Your task to perform on an android device: View the shopping cart on costco. Add razer deathadder to the cart on costco Image 0: 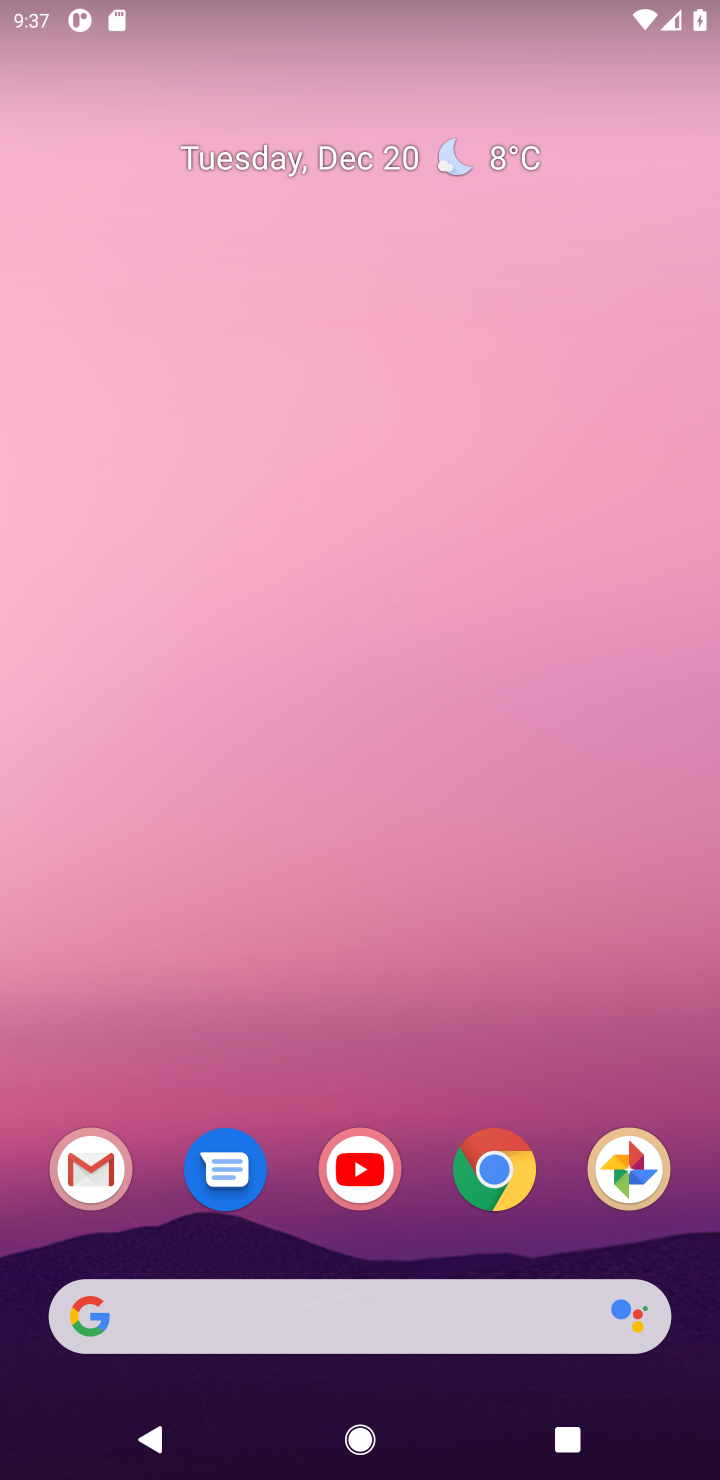
Step 0: click (431, 1291)
Your task to perform on an android device: View the shopping cart on costco. Add razer deathadder to the cart on costco Image 1: 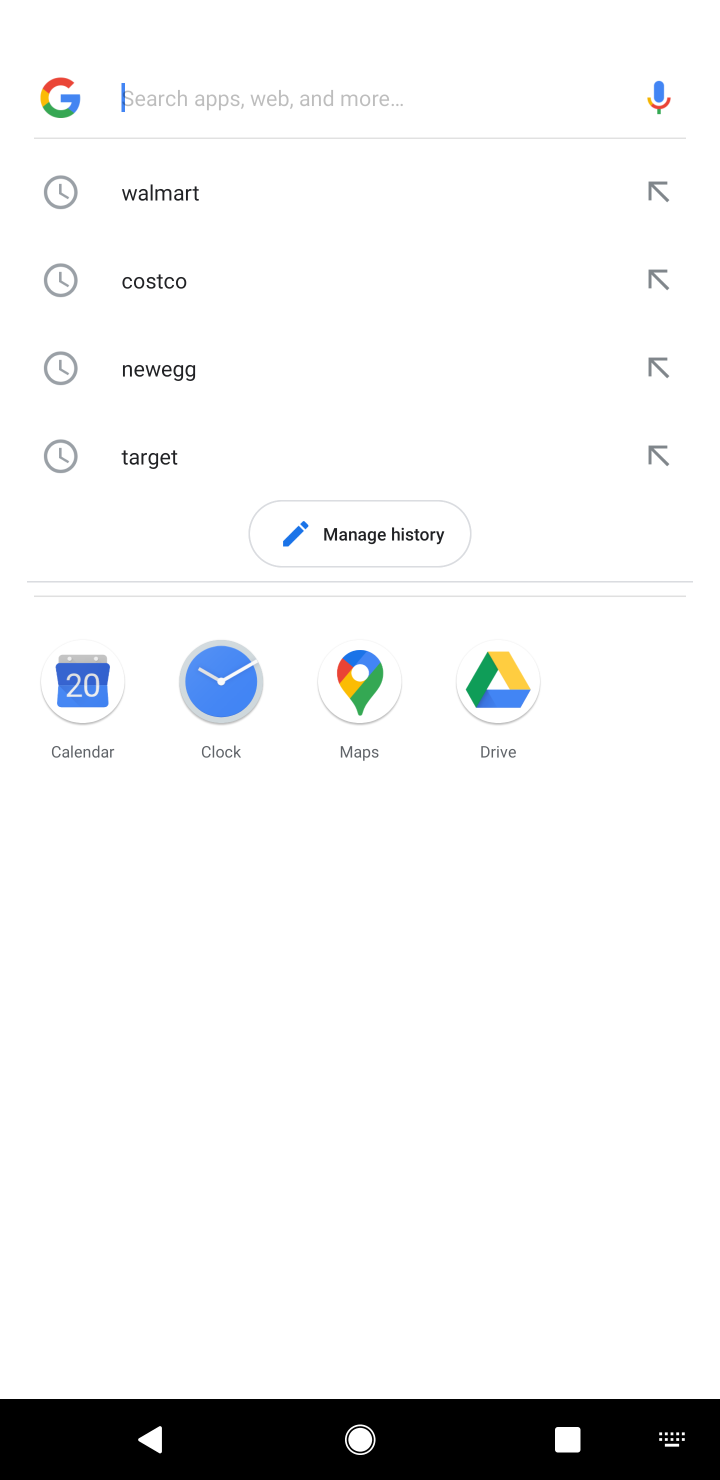
Step 1: click (206, 305)
Your task to perform on an android device: View the shopping cart on costco. Add razer deathadder to the cart on costco Image 2: 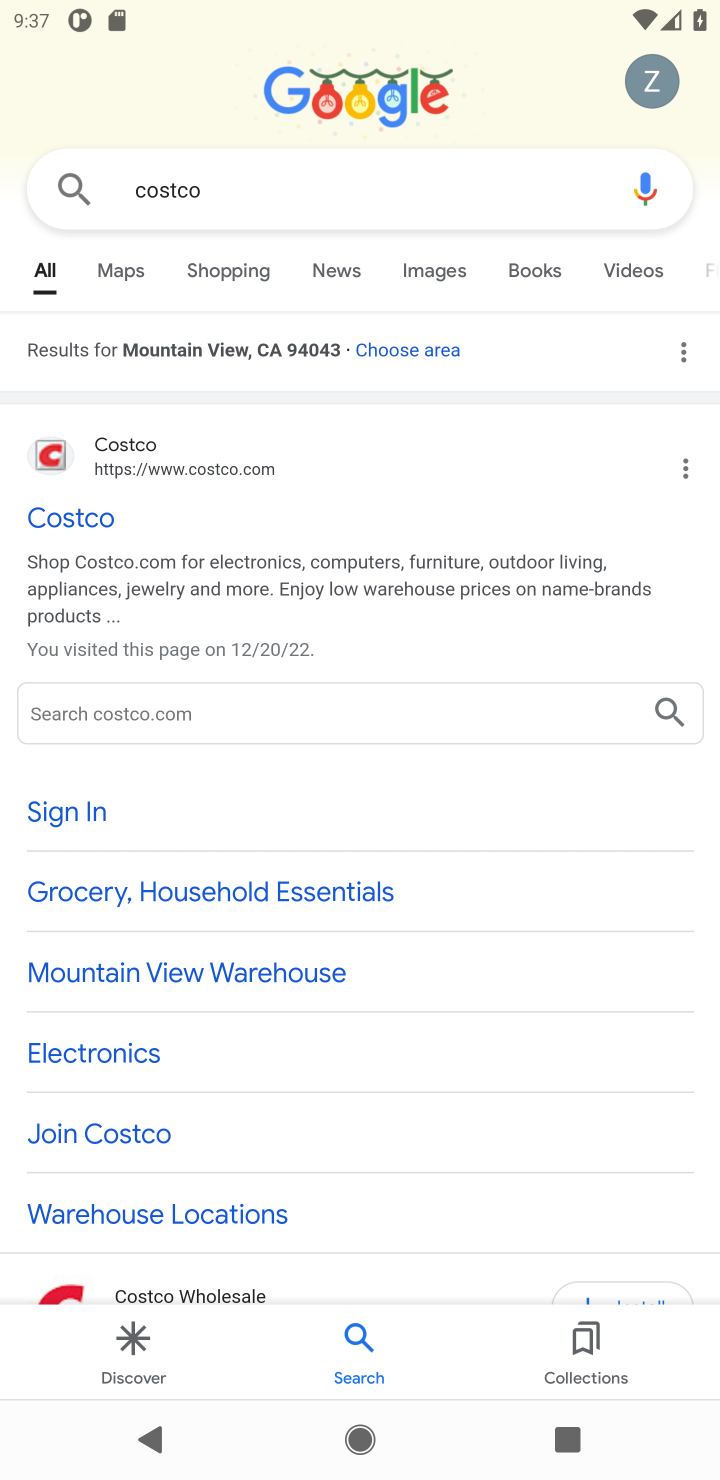
Step 2: click (78, 511)
Your task to perform on an android device: View the shopping cart on costco. Add razer deathadder to the cart on costco Image 3: 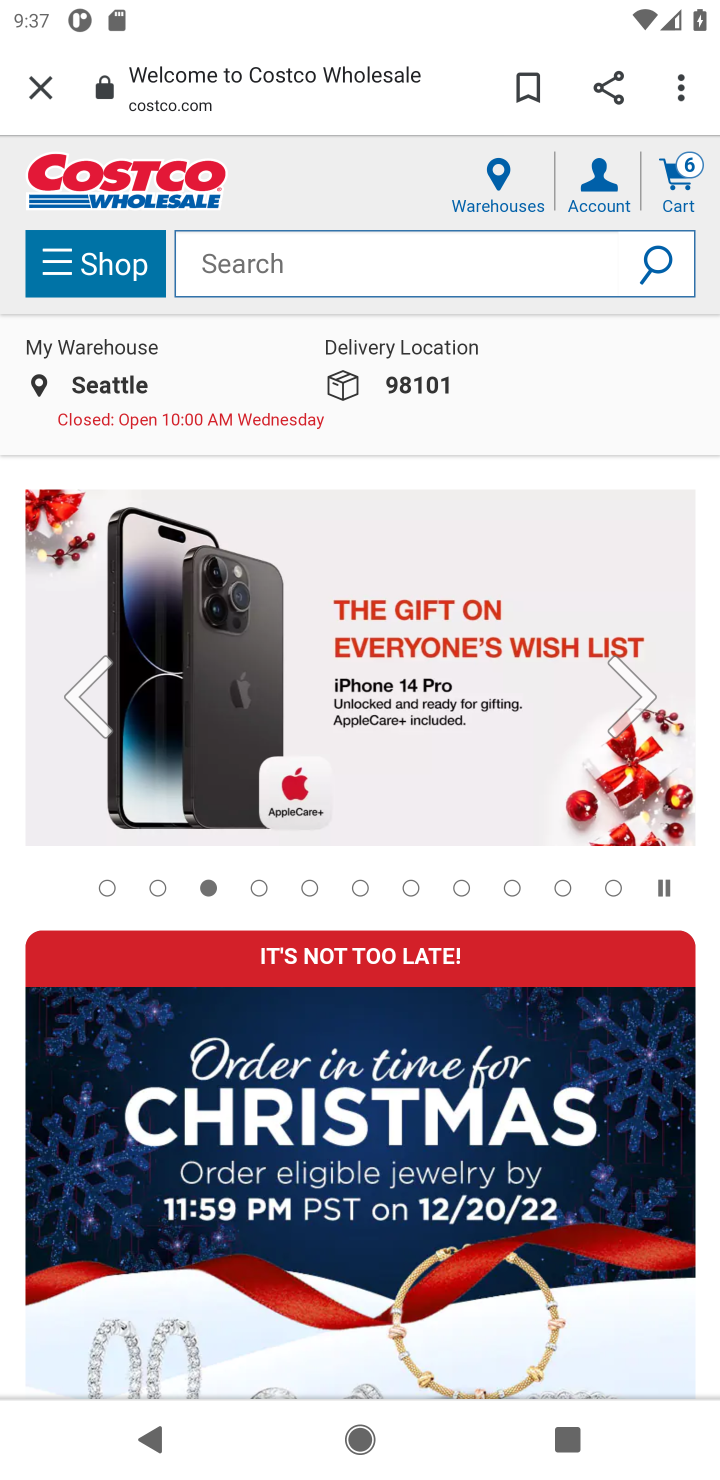
Step 3: click (377, 270)
Your task to perform on an android device: View the shopping cart on costco. Add razer deathadder to the cart on costco Image 4: 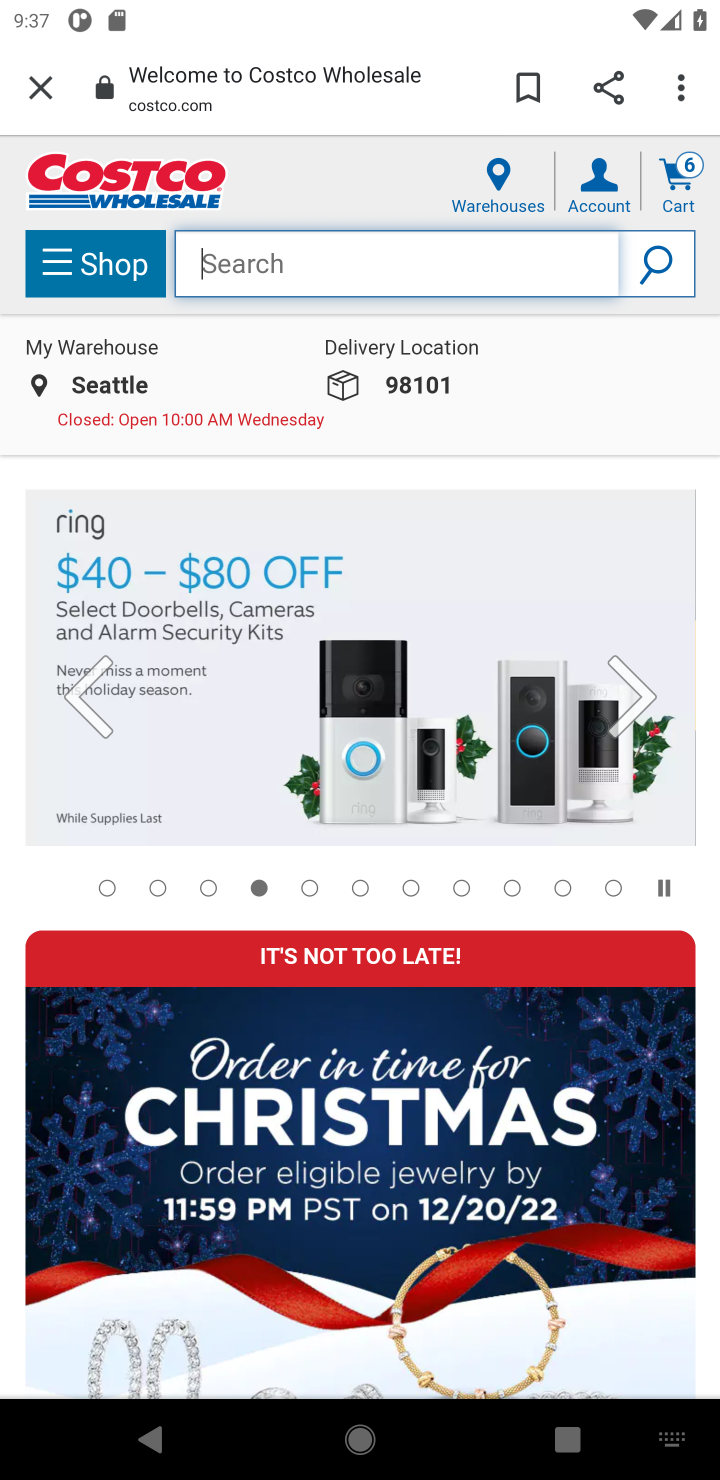
Step 4: type "razer deathadder"
Your task to perform on an android device: View the shopping cart on costco. Add razer deathadder to the cart on costco Image 5: 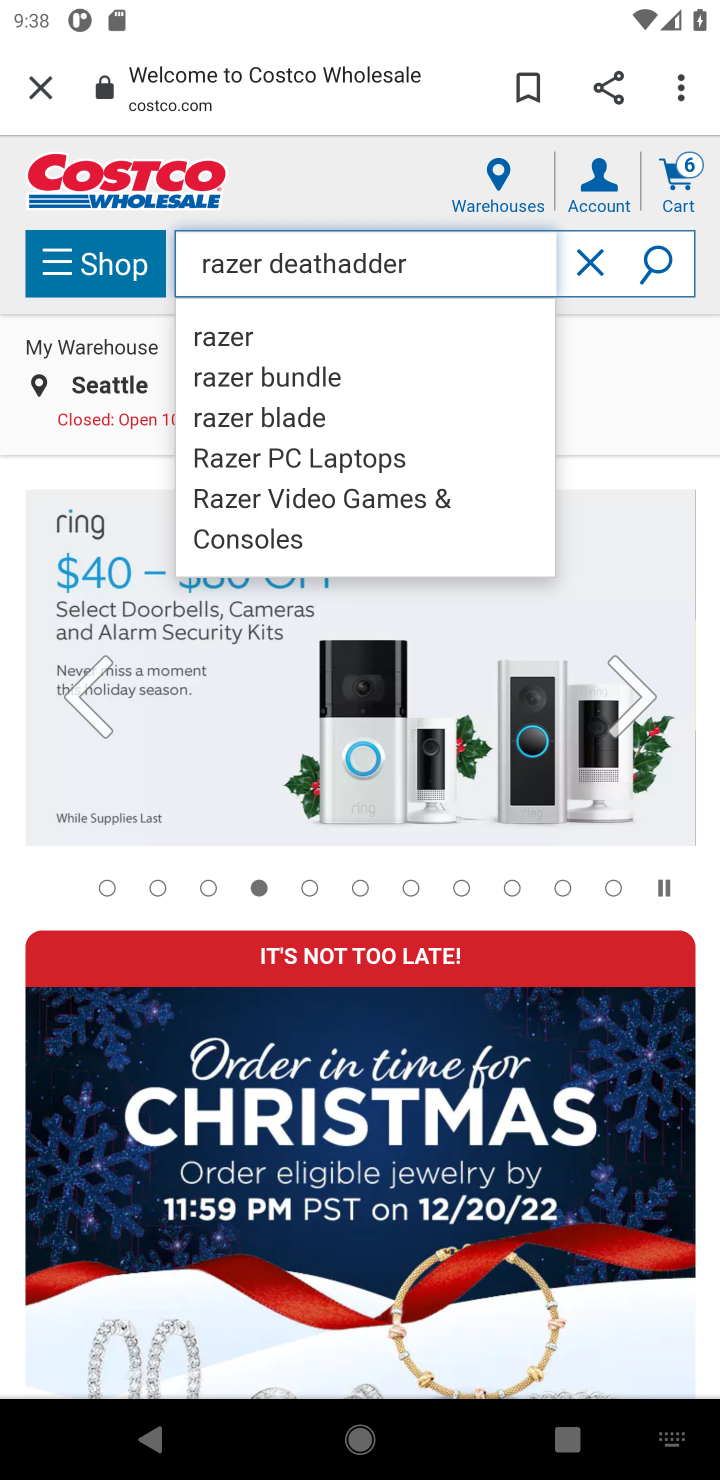
Step 5: click (668, 274)
Your task to perform on an android device: View the shopping cart on costco. Add razer deathadder to the cart on costco Image 6: 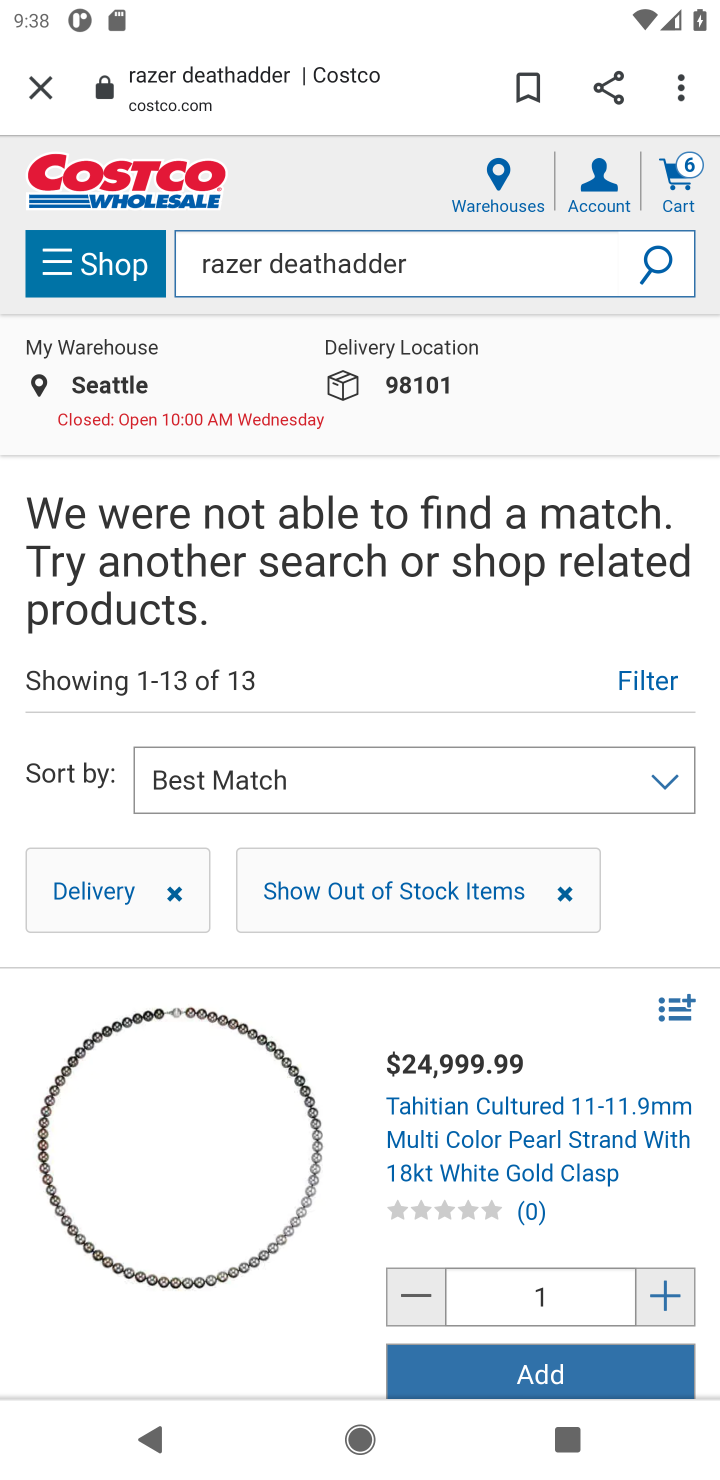
Step 6: click (526, 1372)
Your task to perform on an android device: View the shopping cart on costco. Add razer deathadder to the cart on costco Image 7: 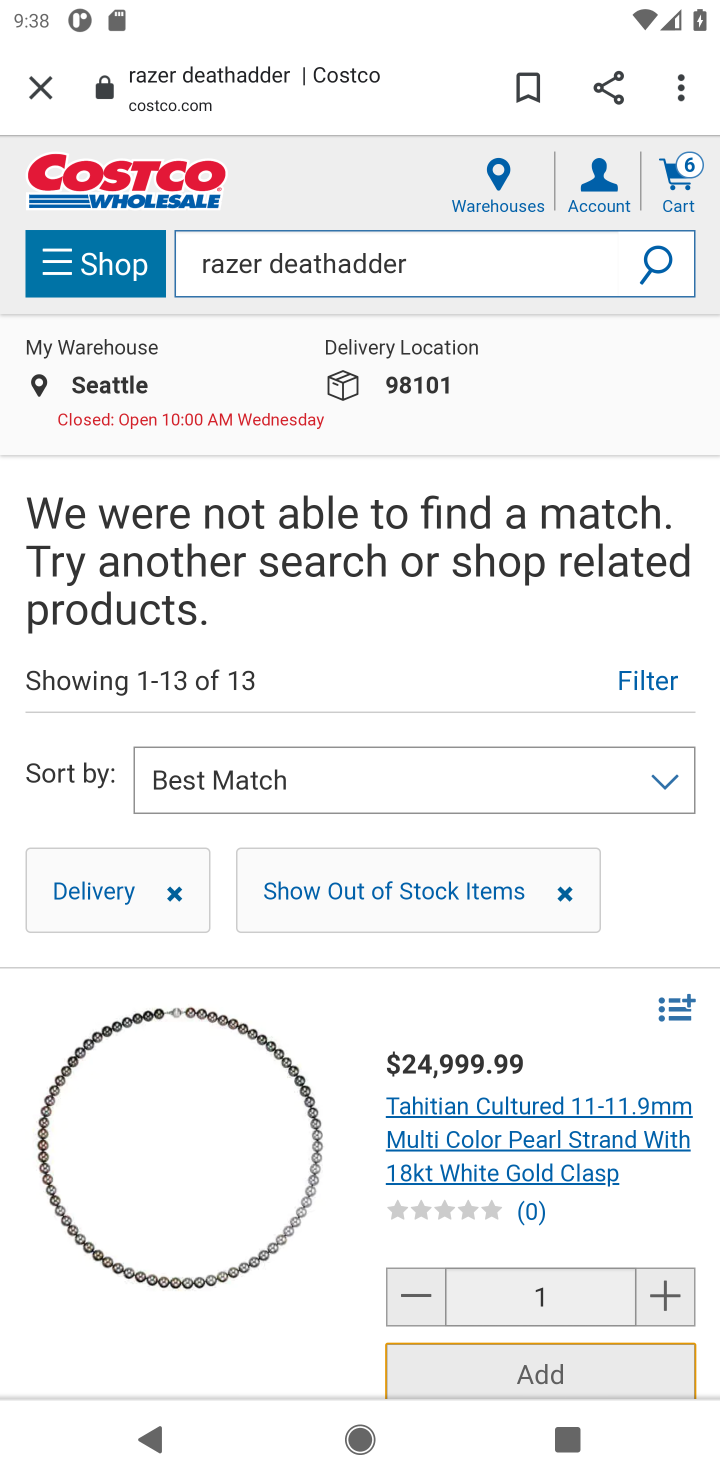
Step 7: task complete